Your task to perform on an android device: Show me recent news Image 0: 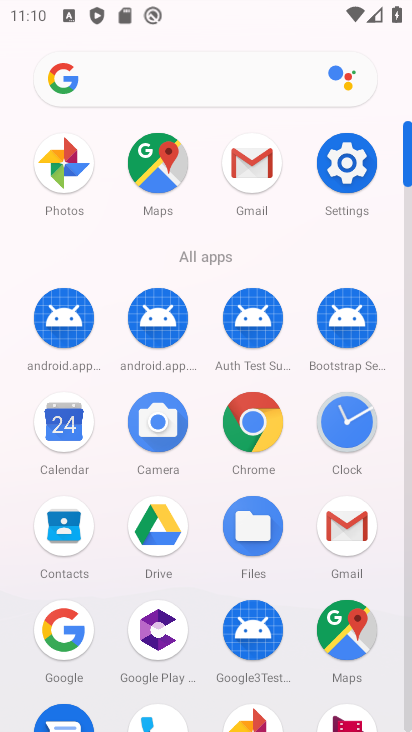
Step 0: press home button
Your task to perform on an android device: Show me recent news Image 1: 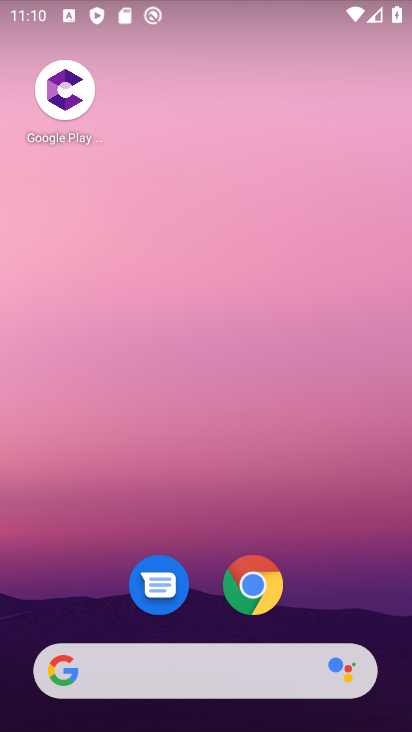
Step 1: click (238, 662)
Your task to perform on an android device: Show me recent news Image 2: 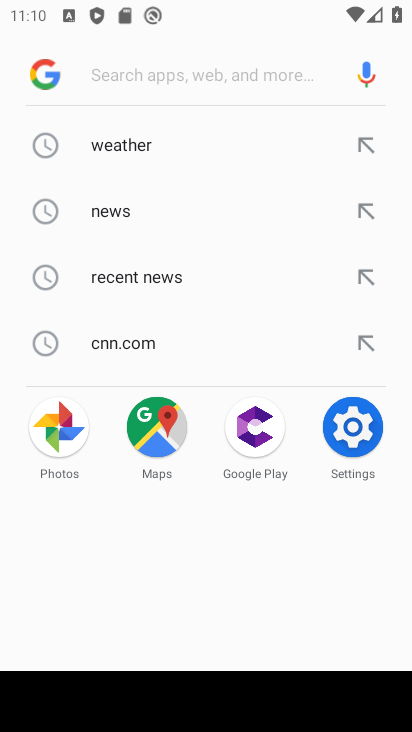
Step 2: click (106, 278)
Your task to perform on an android device: Show me recent news Image 3: 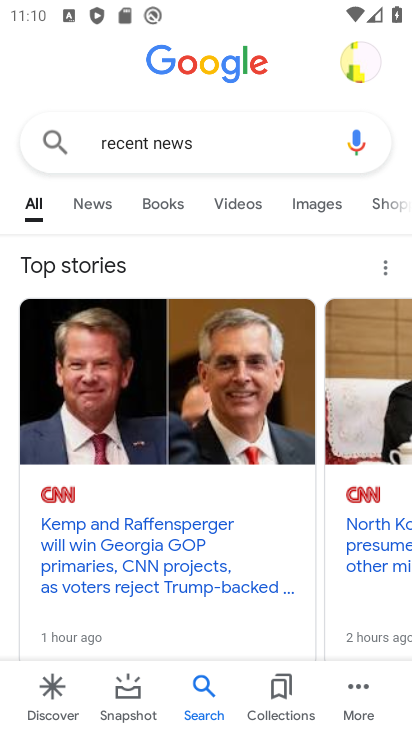
Step 3: task complete